Your task to perform on an android device: Check the news Image 0: 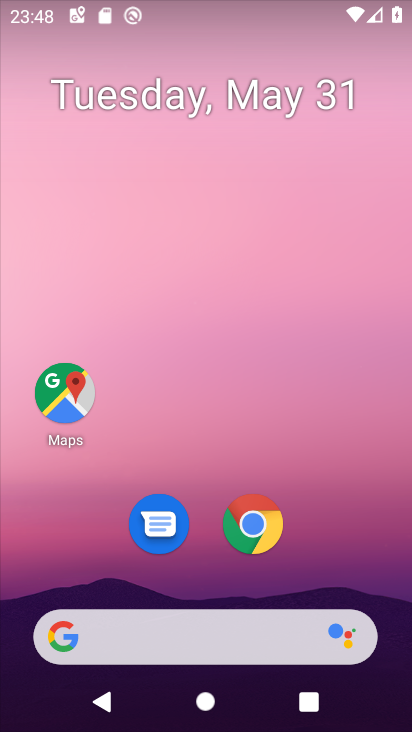
Step 0: click (257, 643)
Your task to perform on an android device: Check the news Image 1: 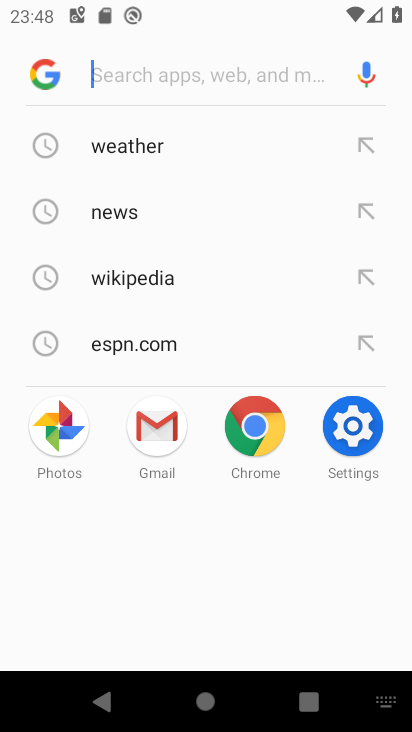
Step 1: click (119, 196)
Your task to perform on an android device: Check the news Image 2: 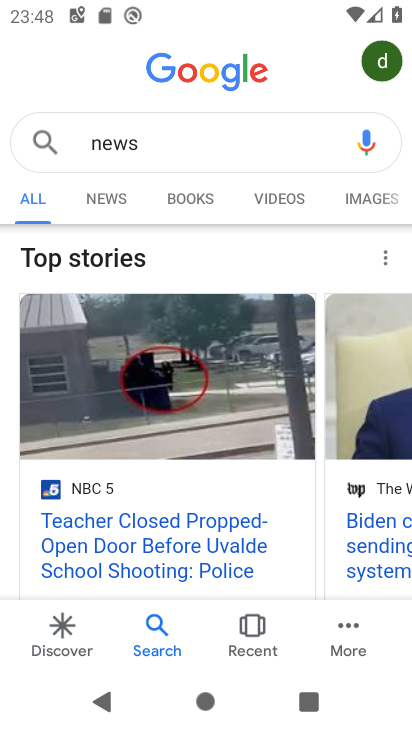
Step 2: click (119, 203)
Your task to perform on an android device: Check the news Image 3: 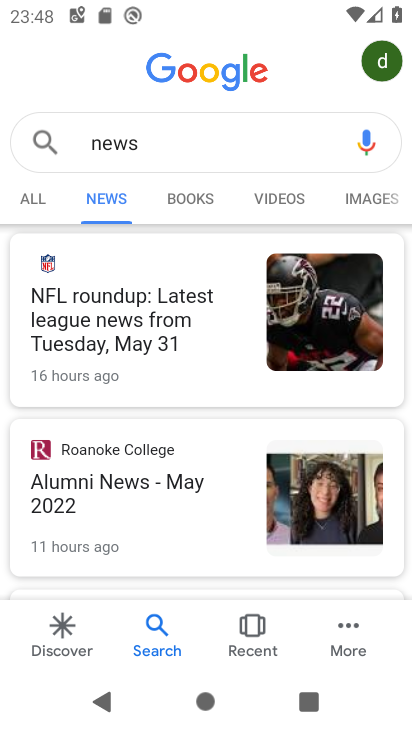
Step 3: task complete